Your task to perform on an android device: change the clock display to show seconds Image 0: 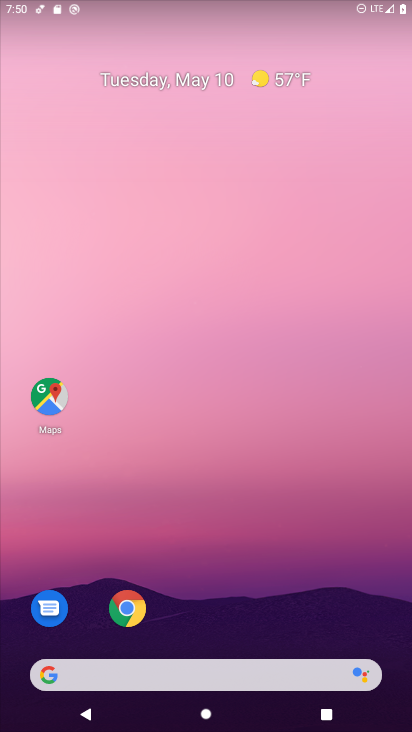
Step 0: drag from (333, 638) to (258, 60)
Your task to perform on an android device: change the clock display to show seconds Image 1: 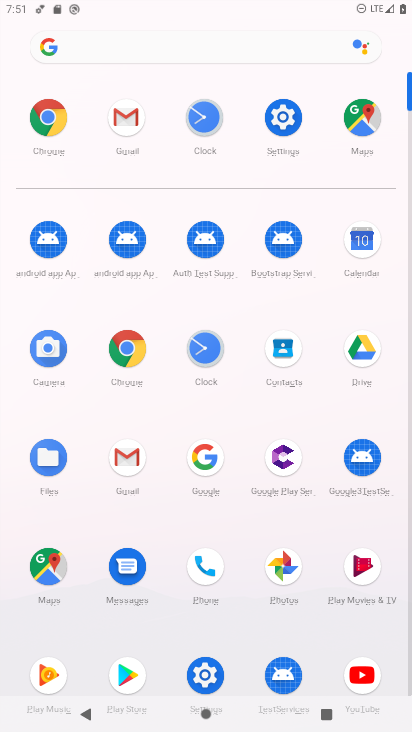
Step 1: click (213, 353)
Your task to perform on an android device: change the clock display to show seconds Image 2: 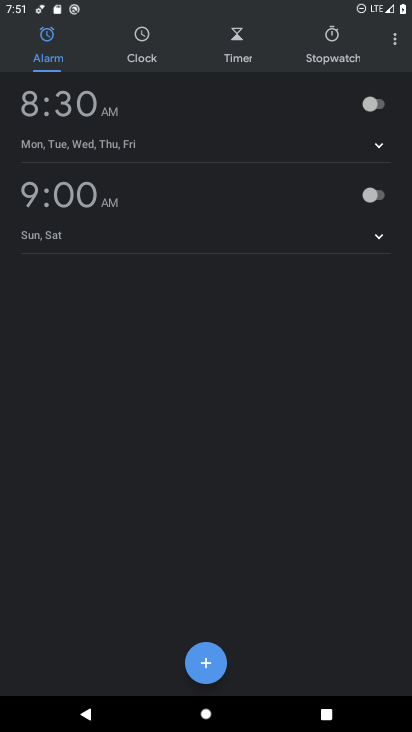
Step 2: click (396, 43)
Your task to perform on an android device: change the clock display to show seconds Image 3: 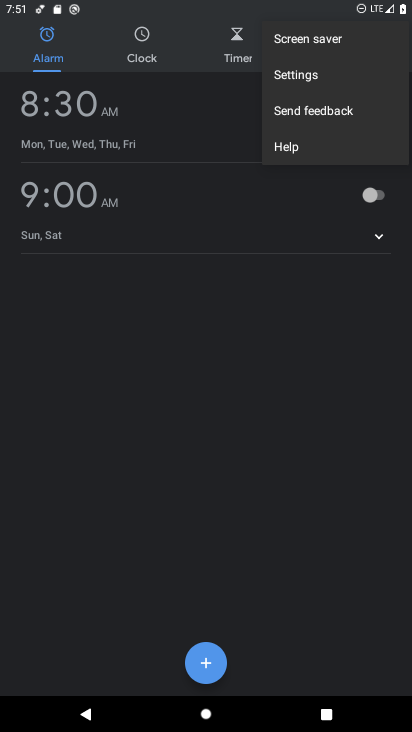
Step 3: click (317, 72)
Your task to perform on an android device: change the clock display to show seconds Image 4: 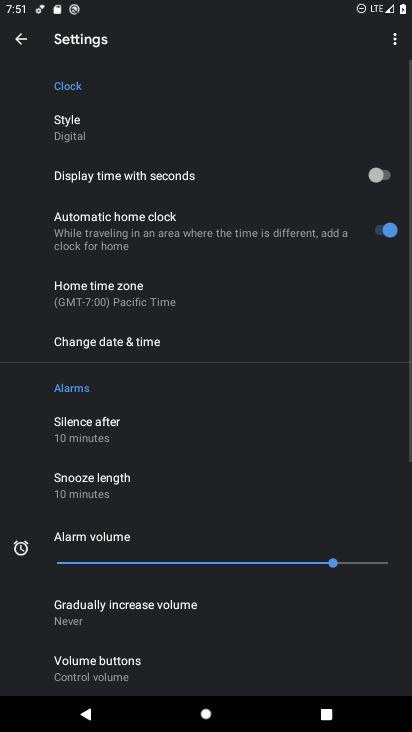
Step 4: click (256, 170)
Your task to perform on an android device: change the clock display to show seconds Image 5: 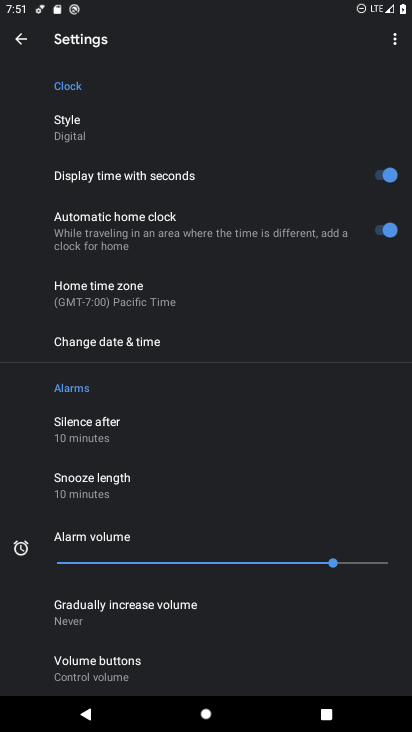
Step 5: task complete